Your task to perform on an android device: turn notification dots on Image 0: 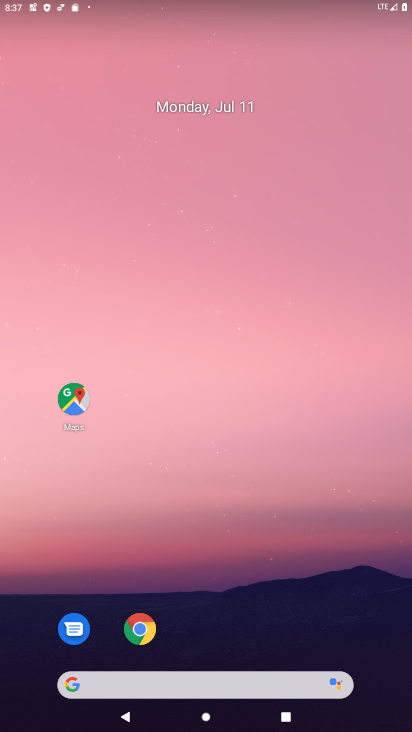
Step 0: drag from (244, 5) to (177, 617)
Your task to perform on an android device: turn notification dots on Image 1: 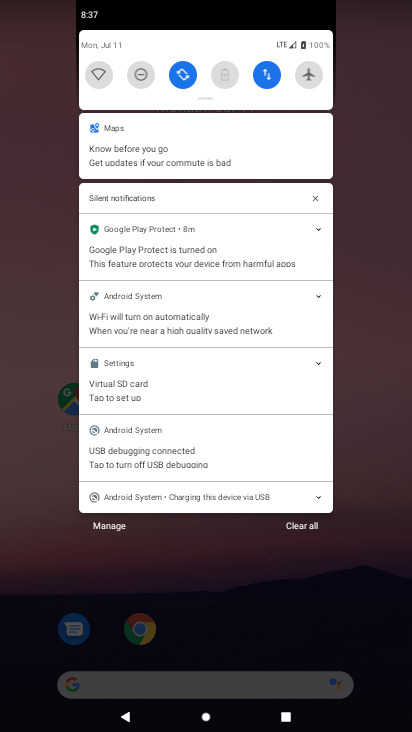
Step 1: drag from (175, 43) to (150, 551)
Your task to perform on an android device: turn notification dots on Image 2: 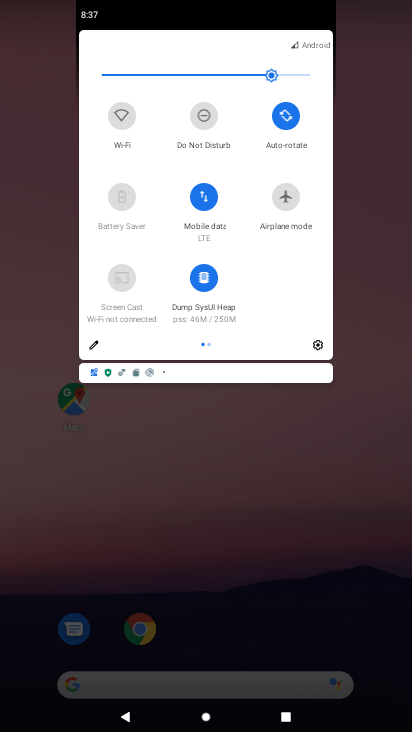
Step 2: click (325, 352)
Your task to perform on an android device: turn notification dots on Image 3: 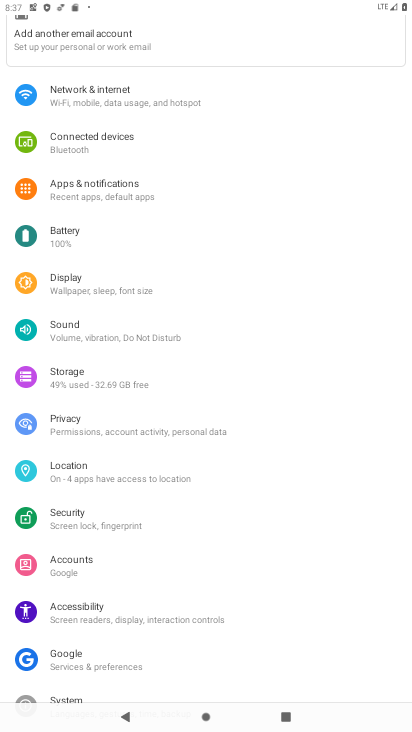
Step 3: click (150, 187)
Your task to perform on an android device: turn notification dots on Image 4: 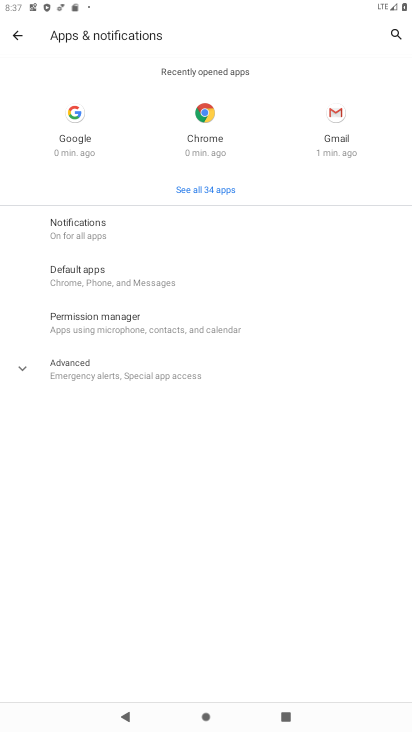
Step 4: click (158, 233)
Your task to perform on an android device: turn notification dots on Image 5: 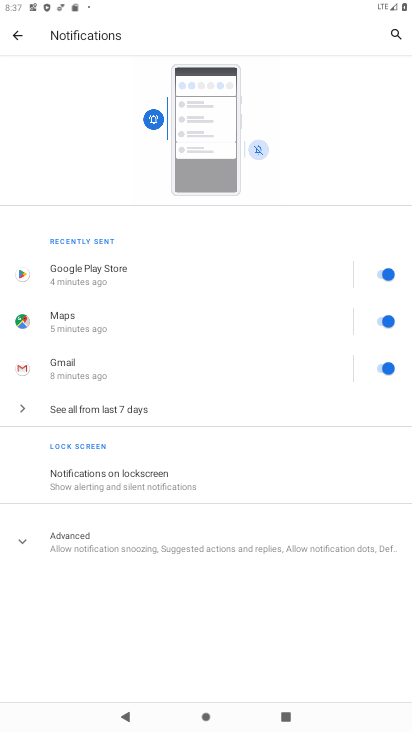
Step 5: click (174, 533)
Your task to perform on an android device: turn notification dots on Image 6: 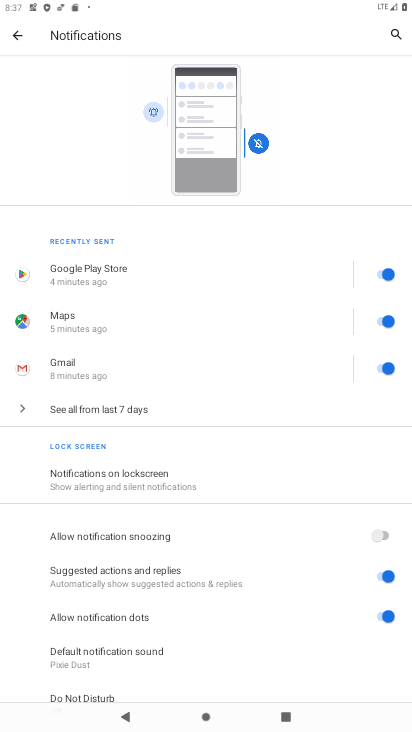
Step 6: task complete